Your task to perform on an android device: Search for pizza restaurants on Maps Image 0: 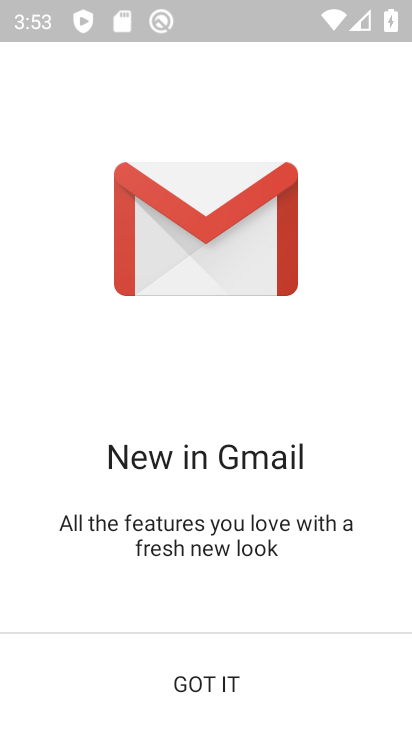
Step 0: press back button
Your task to perform on an android device: Search for pizza restaurants on Maps Image 1: 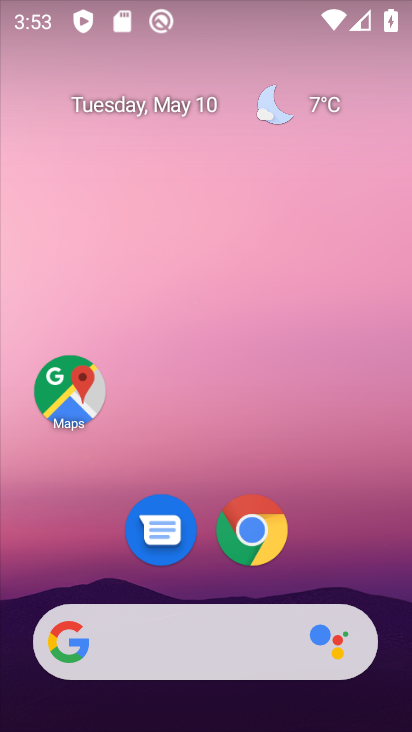
Step 1: click (66, 388)
Your task to perform on an android device: Search for pizza restaurants on Maps Image 2: 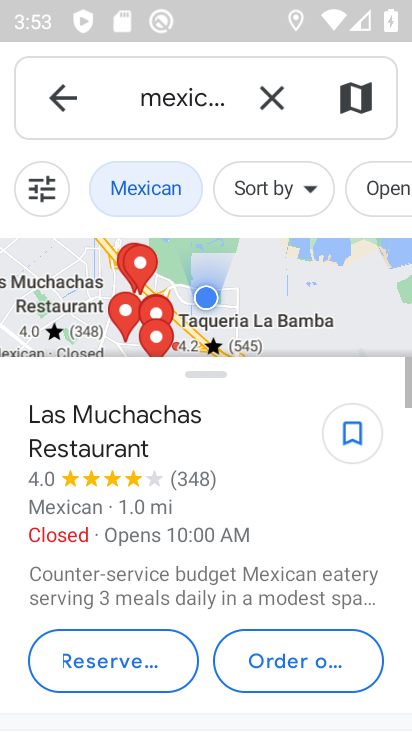
Step 2: click (263, 110)
Your task to perform on an android device: Search for pizza restaurants on Maps Image 3: 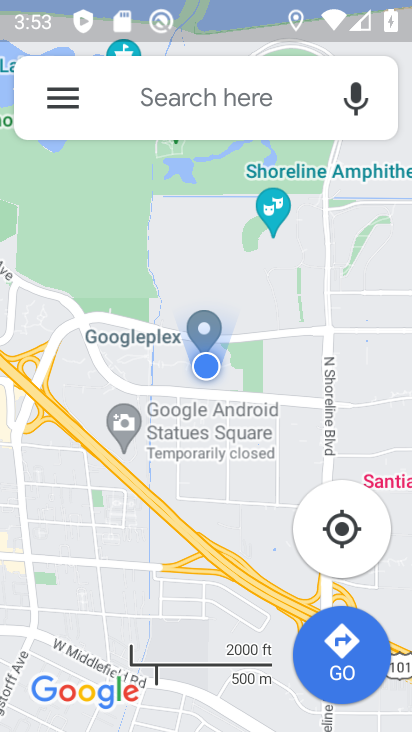
Step 3: click (190, 98)
Your task to perform on an android device: Search for pizza restaurants on Maps Image 4: 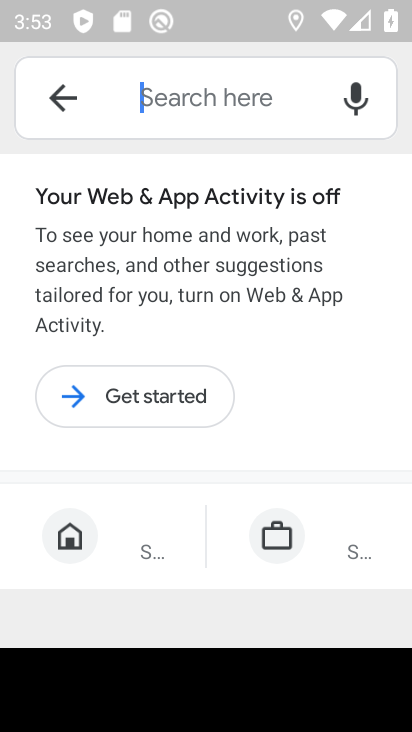
Step 4: type "pizza restaurants"
Your task to perform on an android device: Search for pizza restaurants on Maps Image 5: 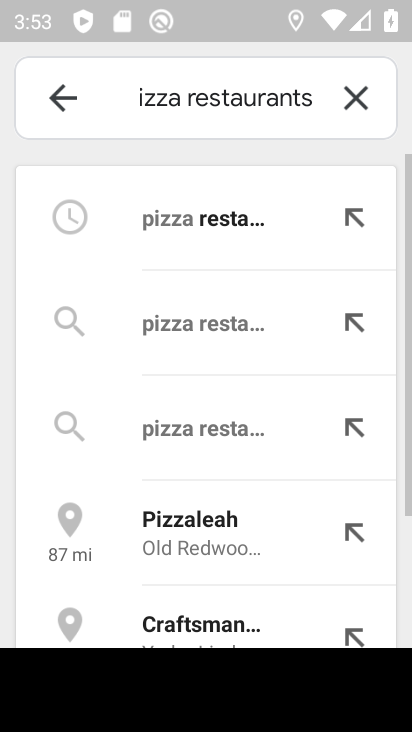
Step 5: click (192, 215)
Your task to perform on an android device: Search for pizza restaurants on Maps Image 6: 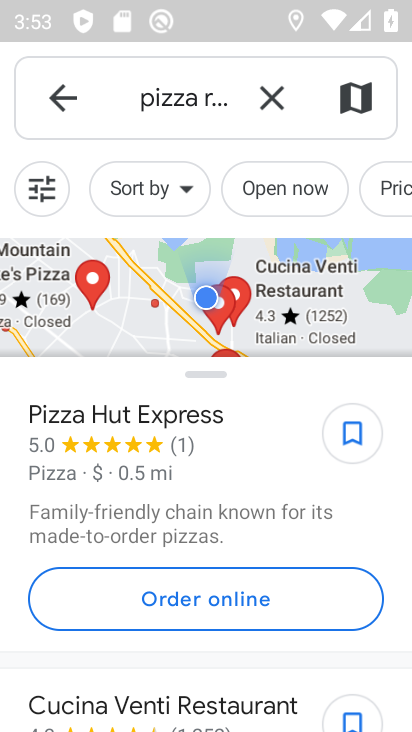
Step 6: task complete